Your task to perform on an android device: show emergency info Image 0: 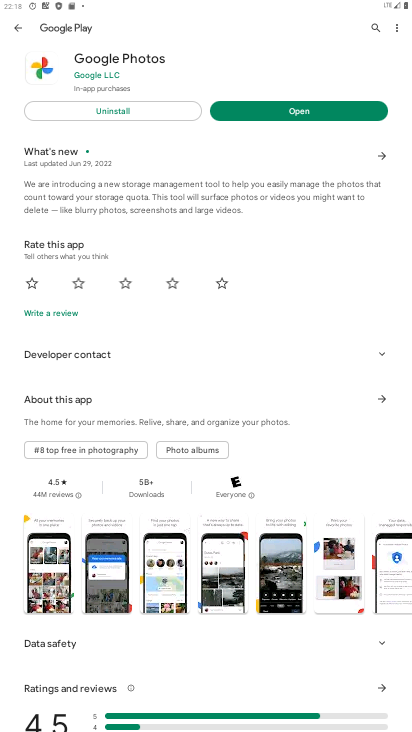
Step 0: drag from (191, 643) to (220, 284)
Your task to perform on an android device: show emergency info Image 1: 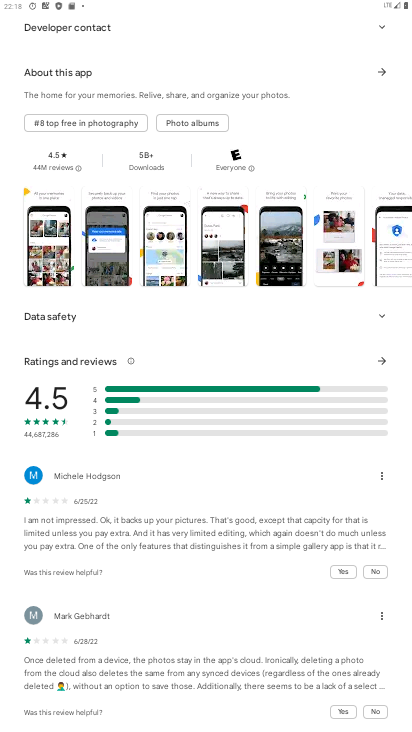
Step 1: drag from (238, 306) to (268, 648)
Your task to perform on an android device: show emergency info Image 2: 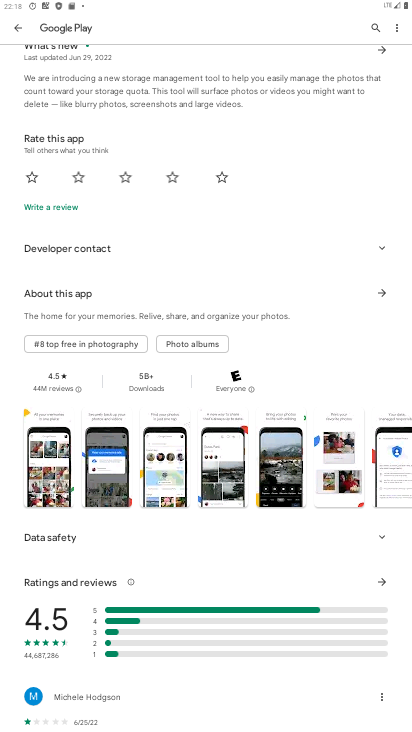
Step 2: drag from (260, 266) to (309, 720)
Your task to perform on an android device: show emergency info Image 3: 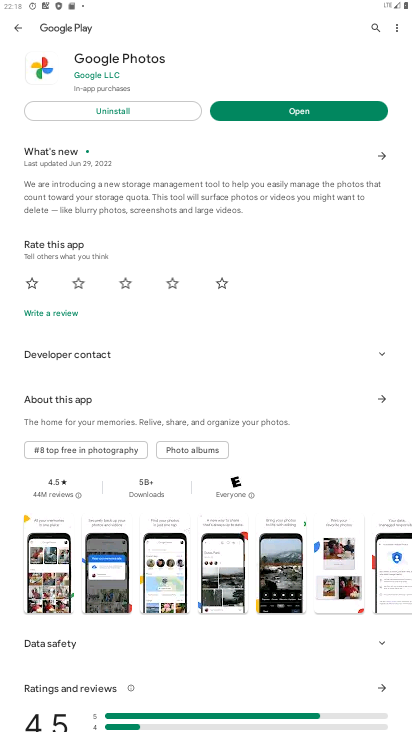
Step 3: click (24, 32)
Your task to perform on an android device: show emergency info Image 4: 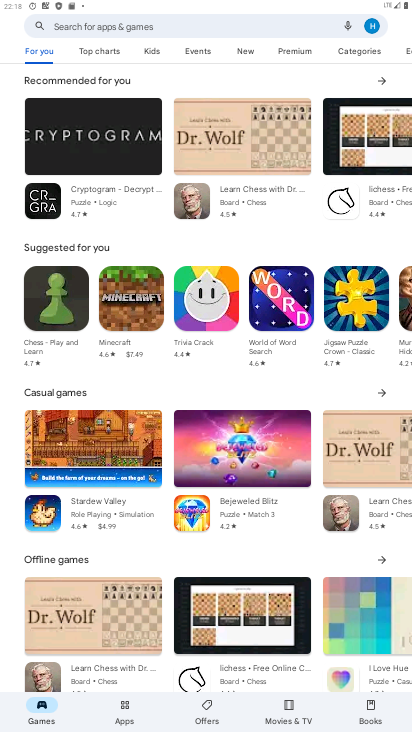
Step 4: press home button
Your task to perform on an android device: show emergency info Image 5: 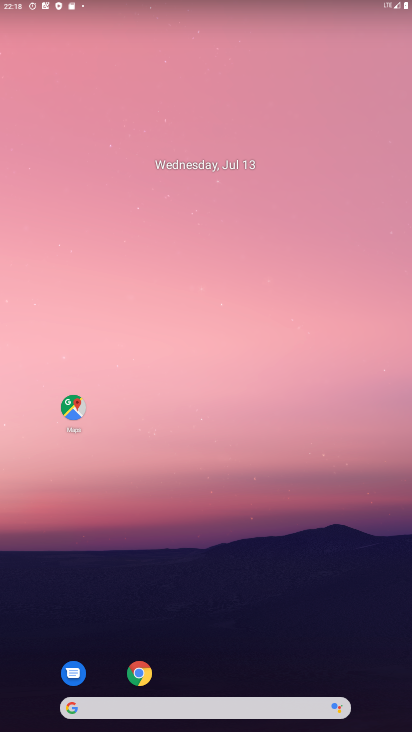
Step 5: drag from (185, 681) to (225, 430)
Your task to perform on an android device: show emergency info Image 6: 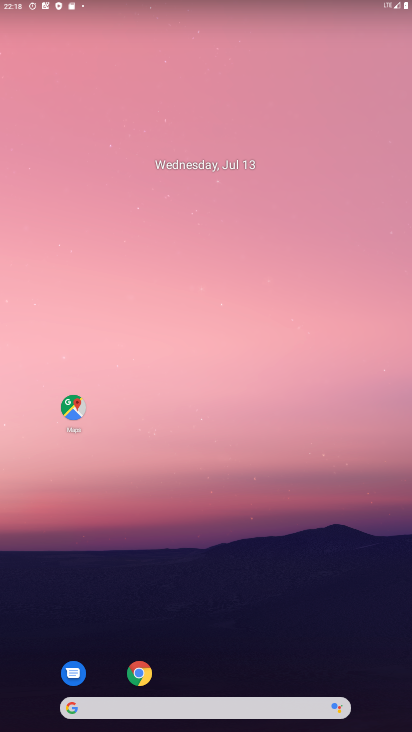
Step 6: drag from (182, 690) to (276, 138)
Your task to perform on an android device: show emergency info Image 7: 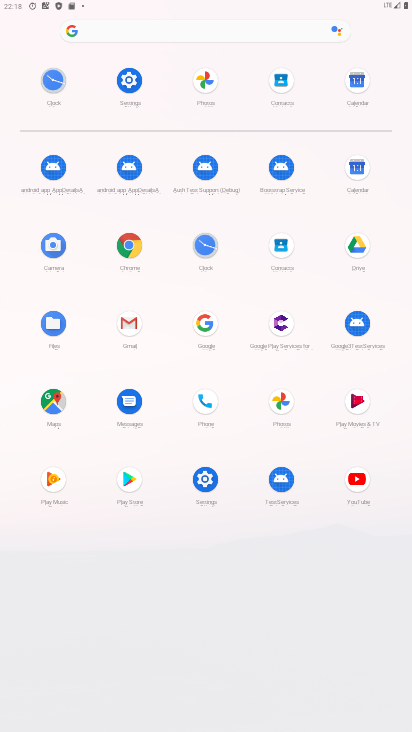
Step 7: click (205, 479)
Your task to perform on an android device: show emergency info Image 8: 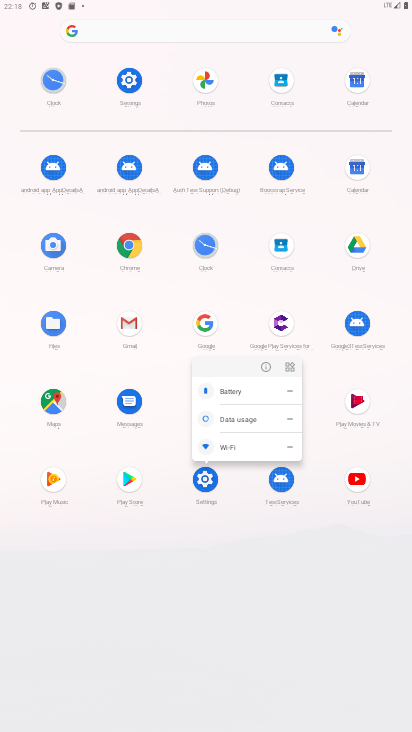
Step 8: click (265, 368)
Your task to perform on an android device: show emergency info Image 9: 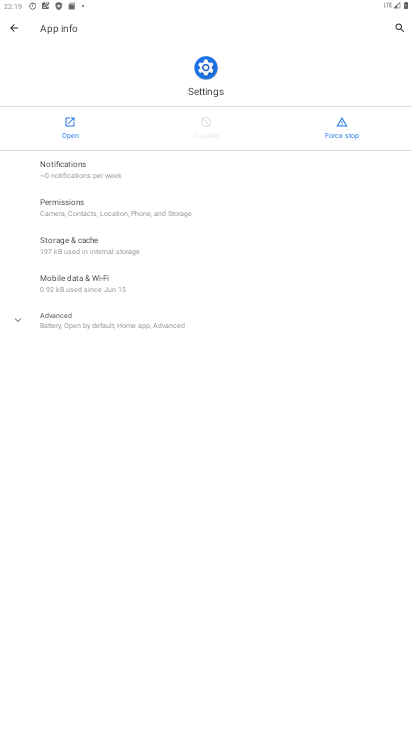
Step 9: click (74, 121)
Your task to perform on an android device: show emergency info Image 10: 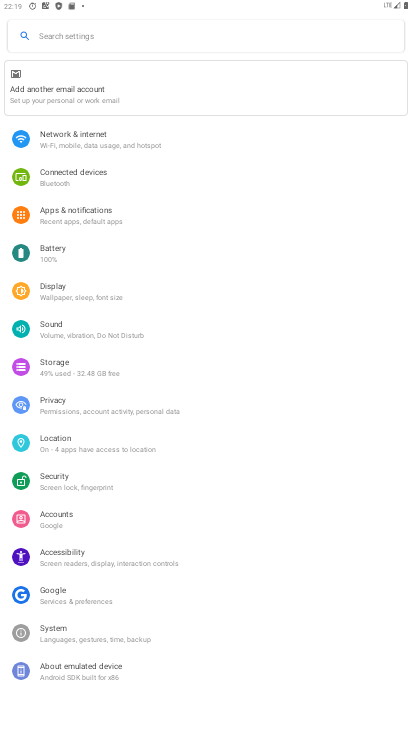
Step 10: click (101, 673)
Your task to perform on an android device: show emergency info Image 11: 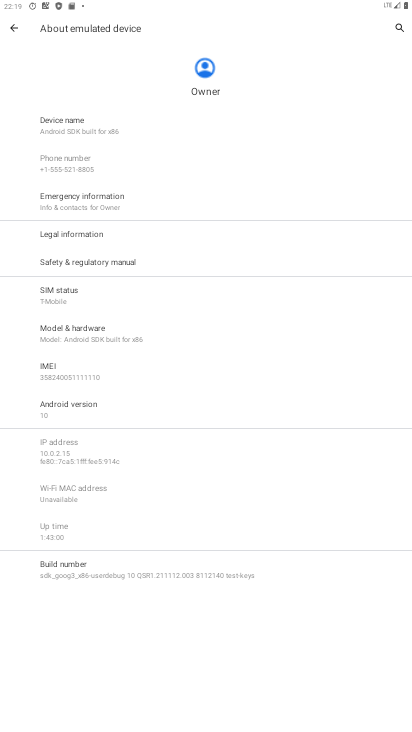
Step 11: click (128, 206)
Your task to perform on an android device: show emergency info Image 12: 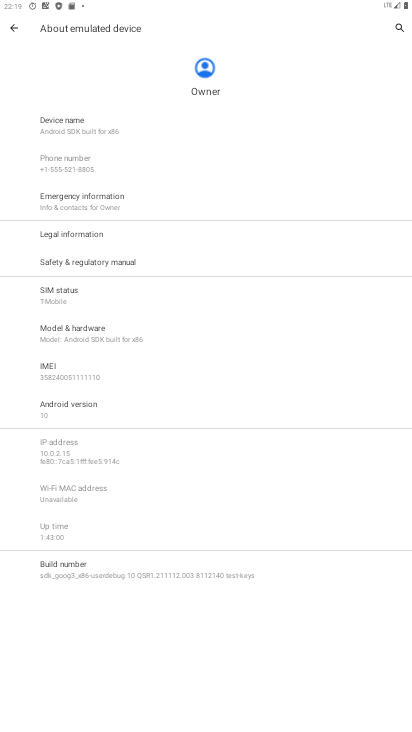
Step 12: click (128, 206)
Your task to perform on an android device: show emergency info Image 13: 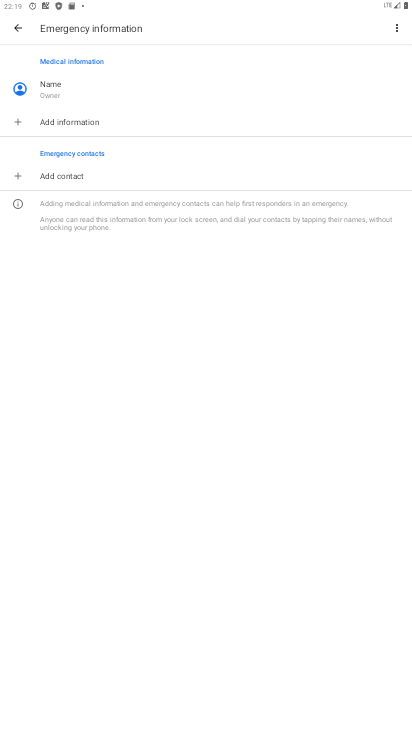
Step 13: task complete